Your task to perform on an android device: change timer sound Image 0: 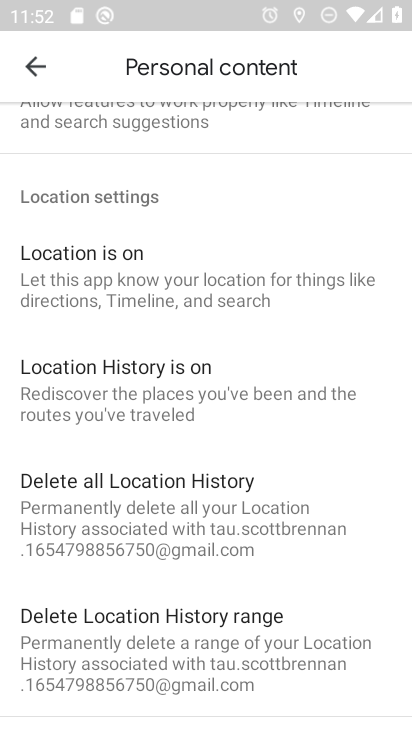
Step 0: press home button
Your task to perform on an android device: change timer sound Image 1: 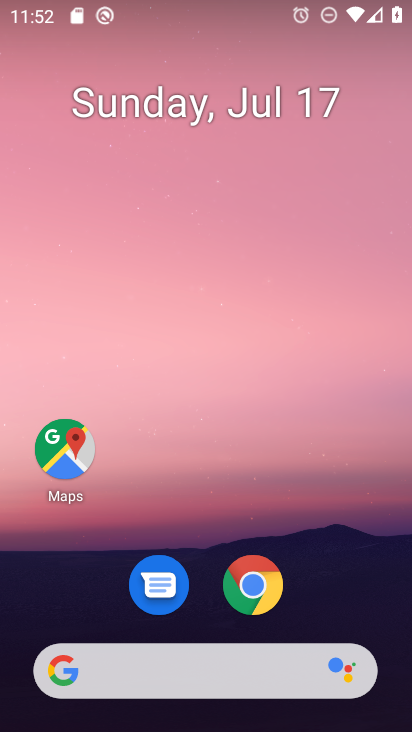
Step 1: drag from (338, 601) to (386, 51)
Your task to perform on an android device: change timer sound Image 2: 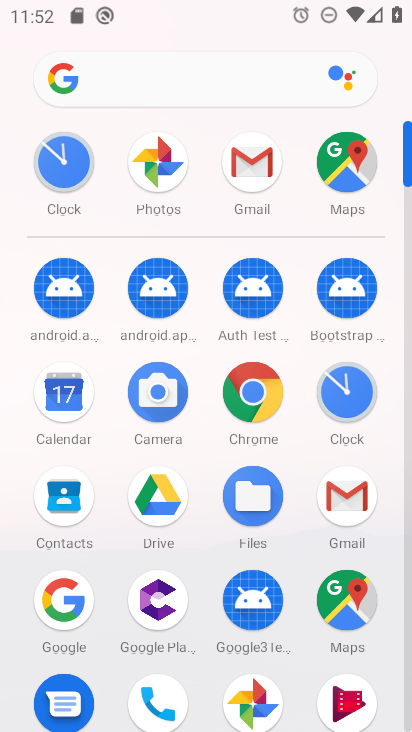
Step 2: click (351, 370)
Your task to perform on an android device: change timer sound Image 3: 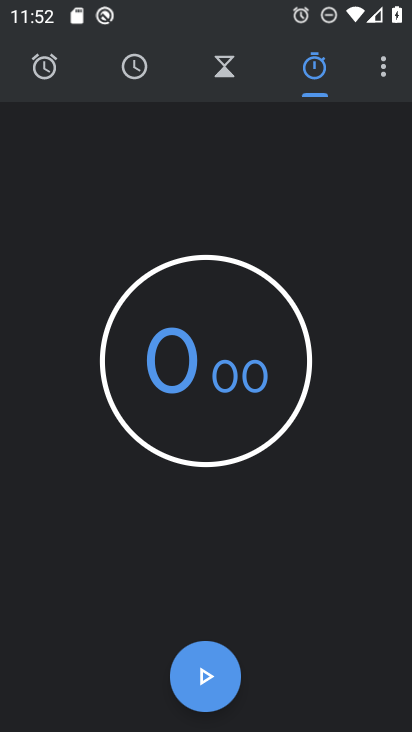
Step 3: click (383, 73)
Your task to perform on an android device: change timer sound Image 4: 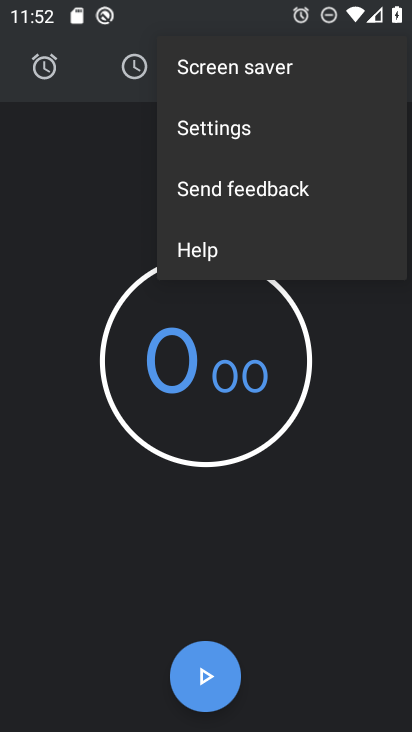
Step 4: click (279, 125)
Your task to perform on an android device: change timer sound Image 5: 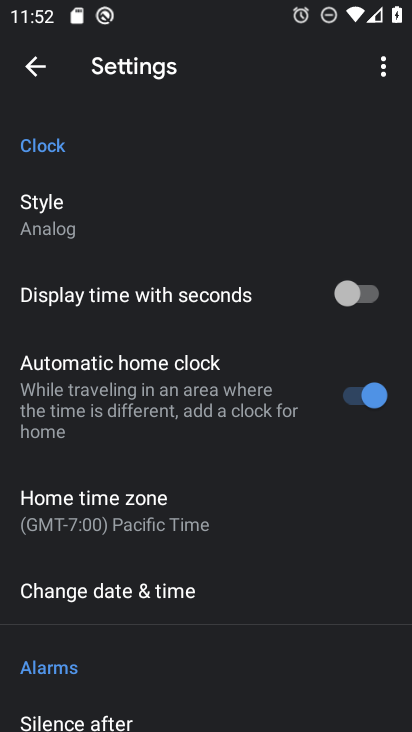
Step 5: drag from (225, 582) to (264, 2)
Your task to perform on an android device: change timer sound Image 6: 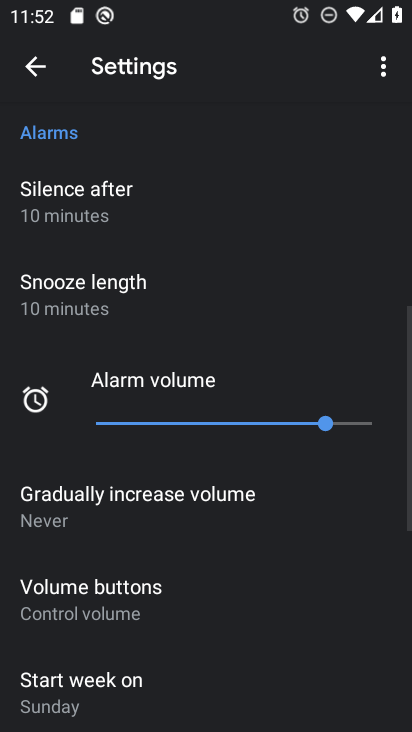
Step 6: drag from (257, 563) to (261, 131)
Your task to perform on an android device: change timer sound Image 7: 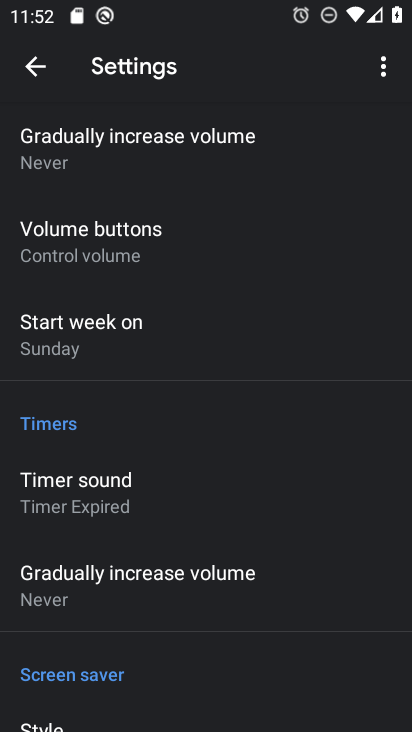
Step 7: click (98, 487)
Your task to perform on an android device: change timer sound Image 8: 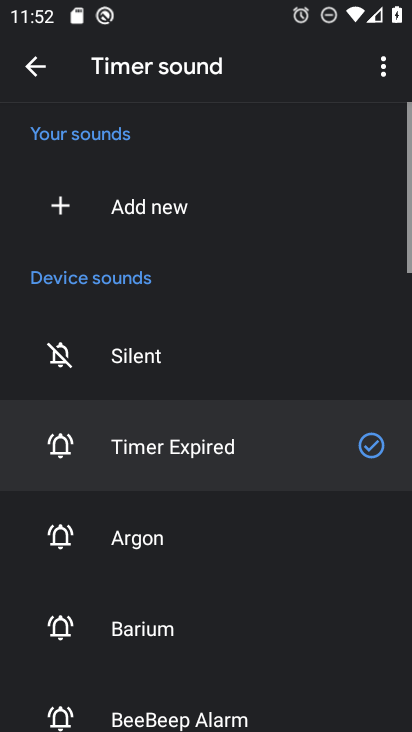
Step 8: click (104, 548)
Your task to perform on an android device: change timer sound Image 9: 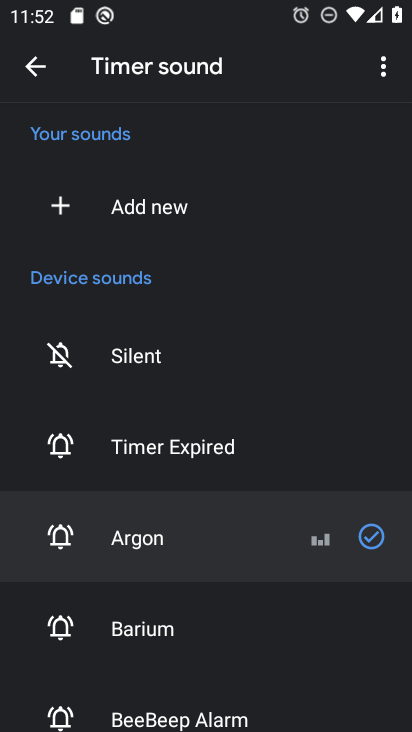
Step 9: task complete